Your task to perform on an android device: Go to Reddit.com Image 0: 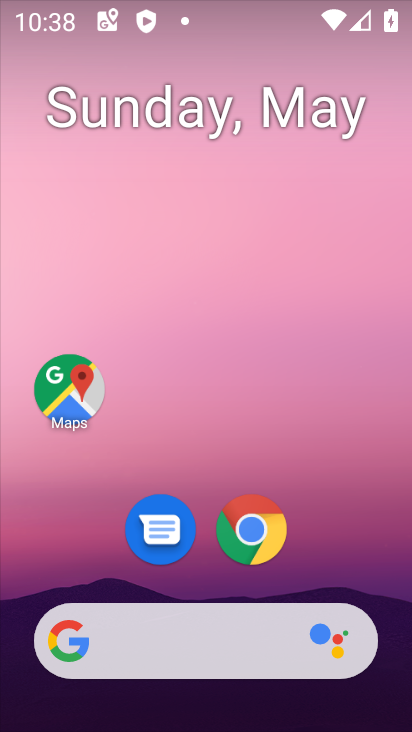
Step 0: click (259, 543)
Your task to perform on an android device: Go to Reddit.com Image 1: 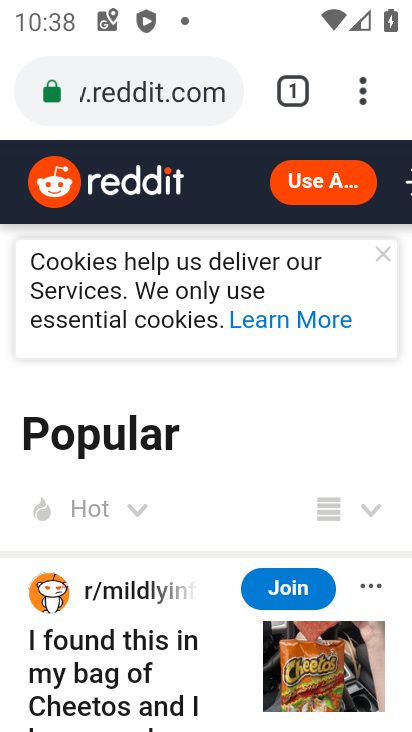
Step 1: task complete